Your task to perform on an android device: open device folders in google photos Image 0: 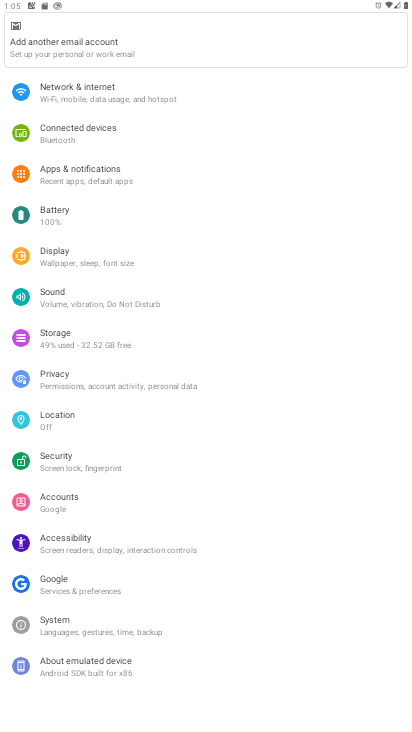
Step 0: press home button
Your task to perform on an android device: open device folders in google photos Image 1: 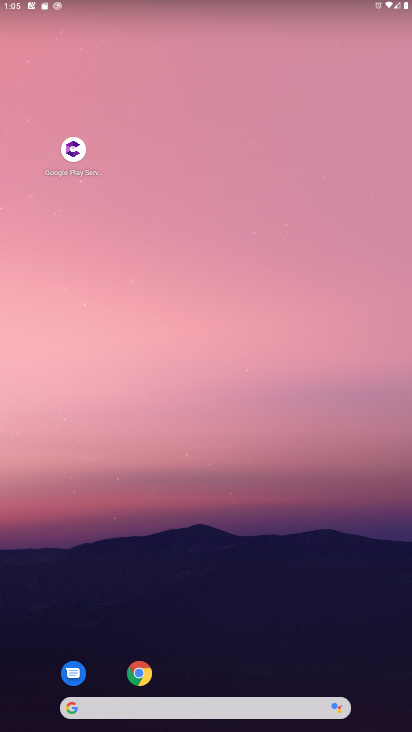
Step 1: drag from (209, 656) to (191, 252)
Your task to perform on an android device: open device folders in google photos Image 2: 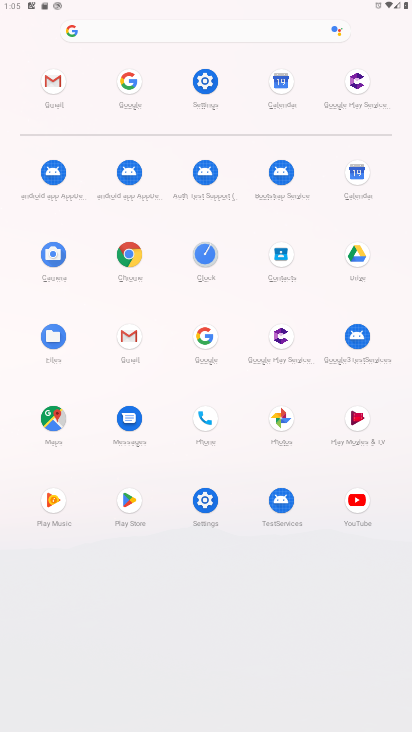
Step 2: click (286, 429)
Your task to perform on an android device: open device folders in google photos Image 3: 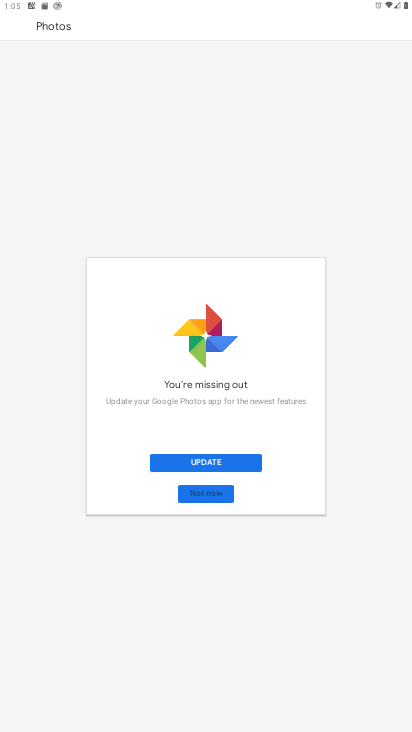
Step 3: click (199, 504)
Your task to perform on an android device: open device folders in google photos Image 4: 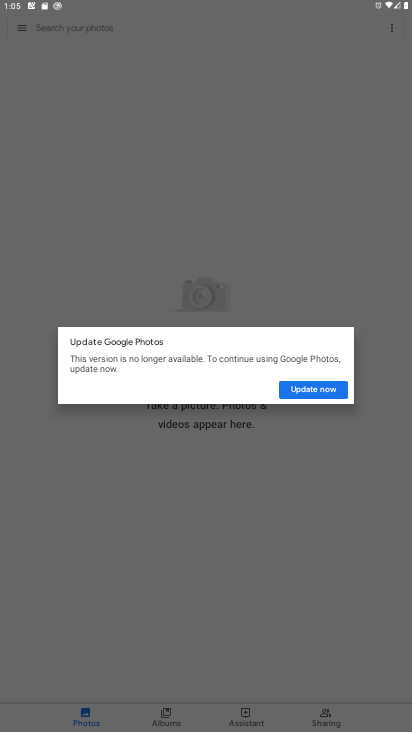
Step 4: click (295, 389)
Your task to perform on an android device: open device folders in google photos Image 5: 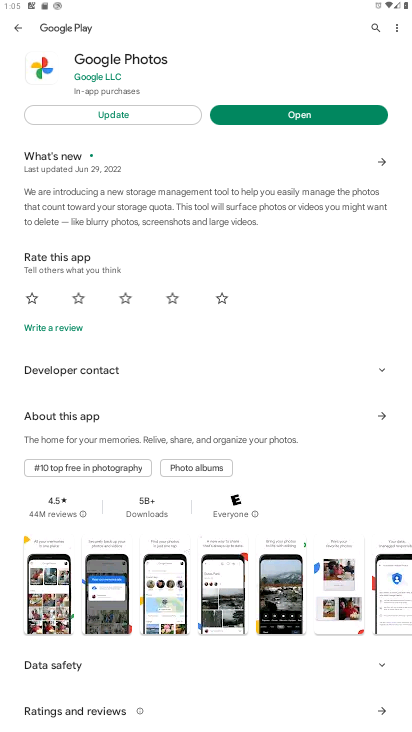
Step 5: click (282, 118)
Your task to perform on an android device: open device folders in google photos Image 6: 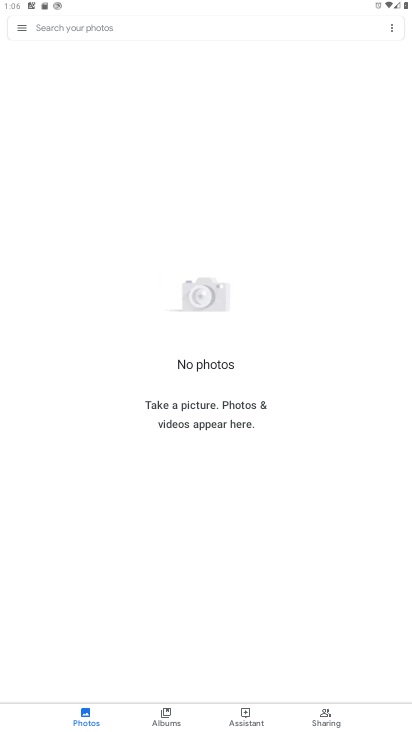
Step 6: click (22, 33)
Your task to perform on an android device: open device folders in google photos Image 7: 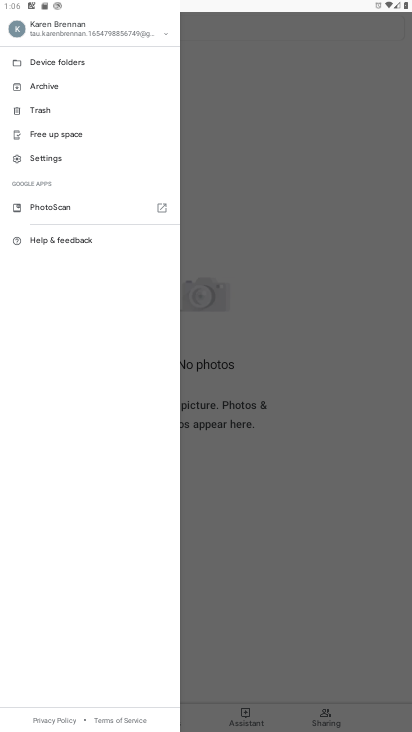
Step 7: click (87, 68)
Your task to perform on an android device: open device folders in google photos Image 8: 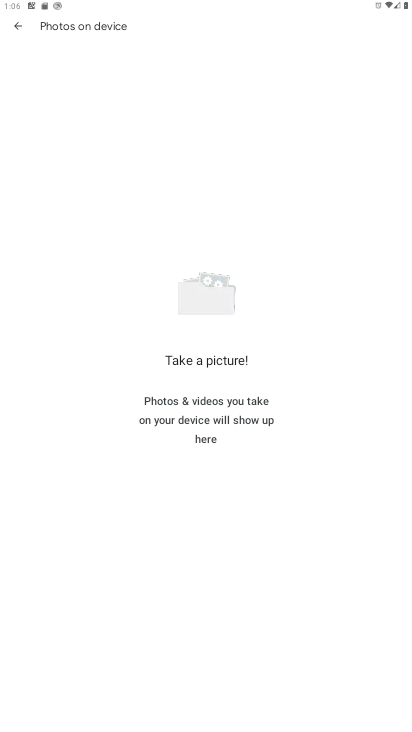
Step 8: task complete